Your task to perform on an android device: turn notification dots off Image 0: 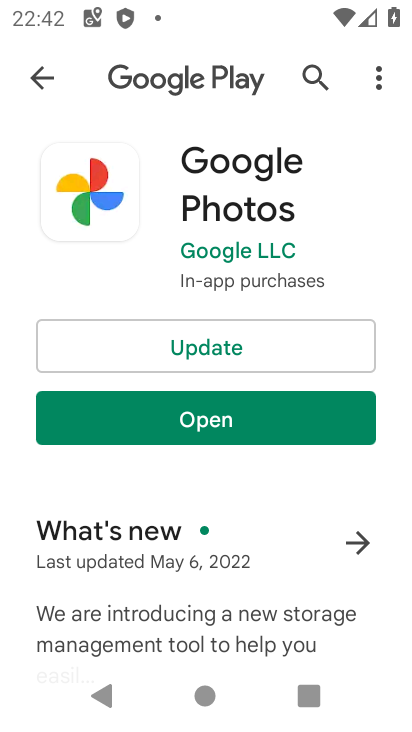
Step 0: press home button
Your task to perform on an android device: turn notification dots off Image 1: 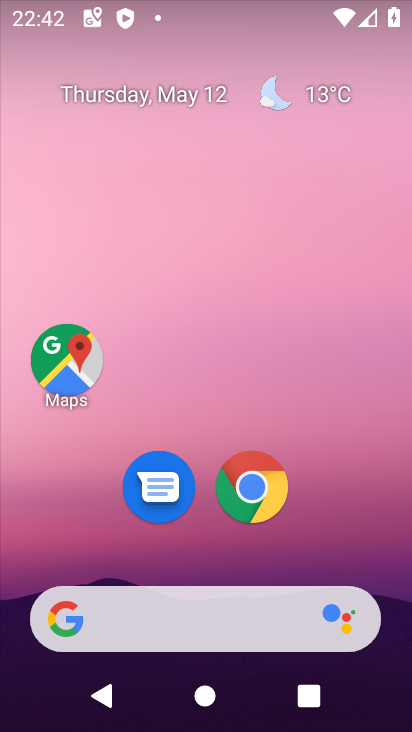
Step 1: drag from (212, 566) to (367, 159)
Your task to perform on an android device: turn notification dots off Image 2: 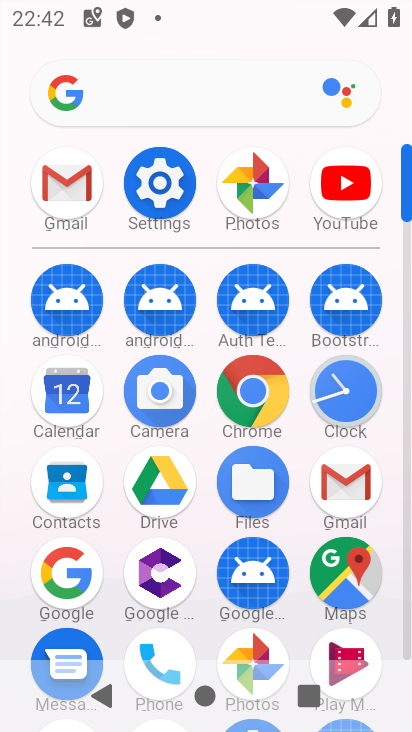
Step 2: click (173, 195)
Your task to perform on an android device: turn notification dots off Image 3: 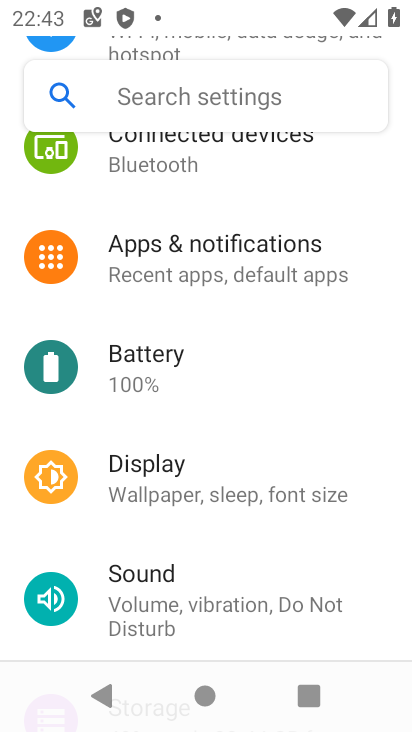
Step 3: click (217, 289)
Your task to perform on an android device: turn notification dots off Image 4: 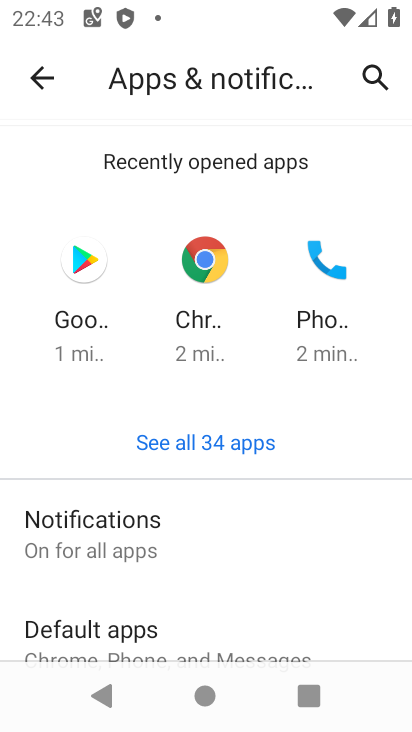
Step 4: click (153, 539)
Your task to perform on an android device: turn notification dots off Image 5: 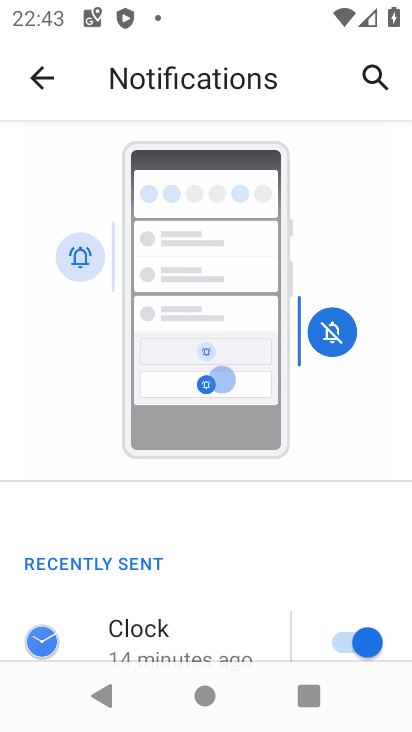
Step 5: drag from (169, 602) to (268, 103)
Your task to perform on an android device: turn notification dots off Image 6: 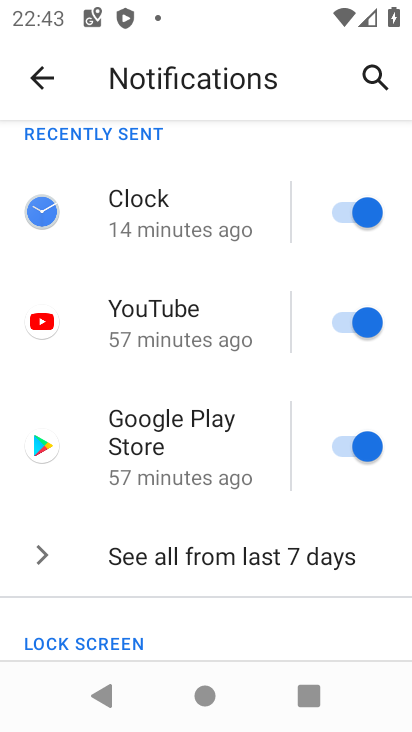
Step 6: drag from (139, 558) to (185, 22)
Your task to perform on an android device: turn notification dots off Image 7: 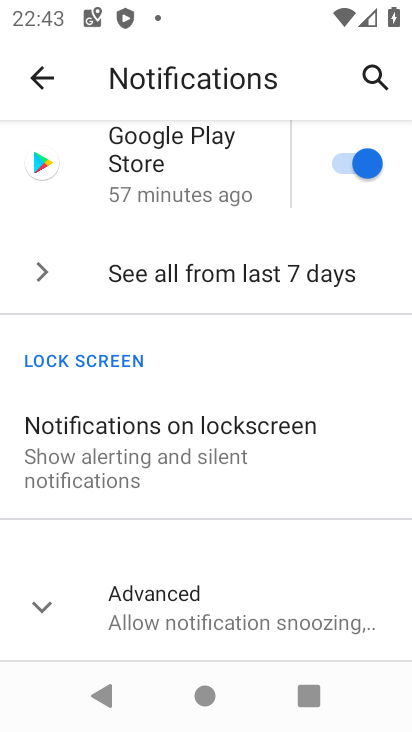
Step 7: drag from (188, 587) to (295, 158)
Your task to perform on an android device: turn notification dots off Image 8: 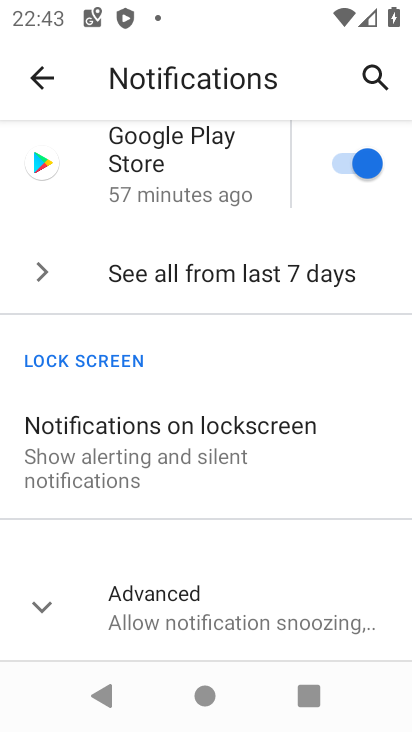
Step 8: click (195, 607)
Your task to perform on an android device: turn notification dots off Image 9: 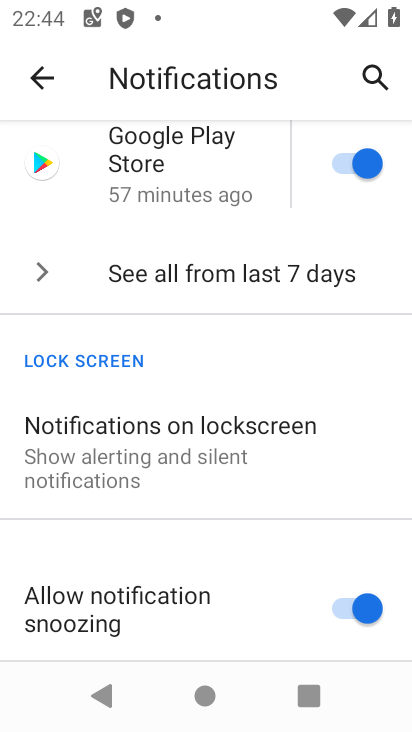
Step 9: task complete